Your task to perform on an android device: Clear all items from cart on target. Add "usb-a" to the cart on target, then select checkout. Image 0: 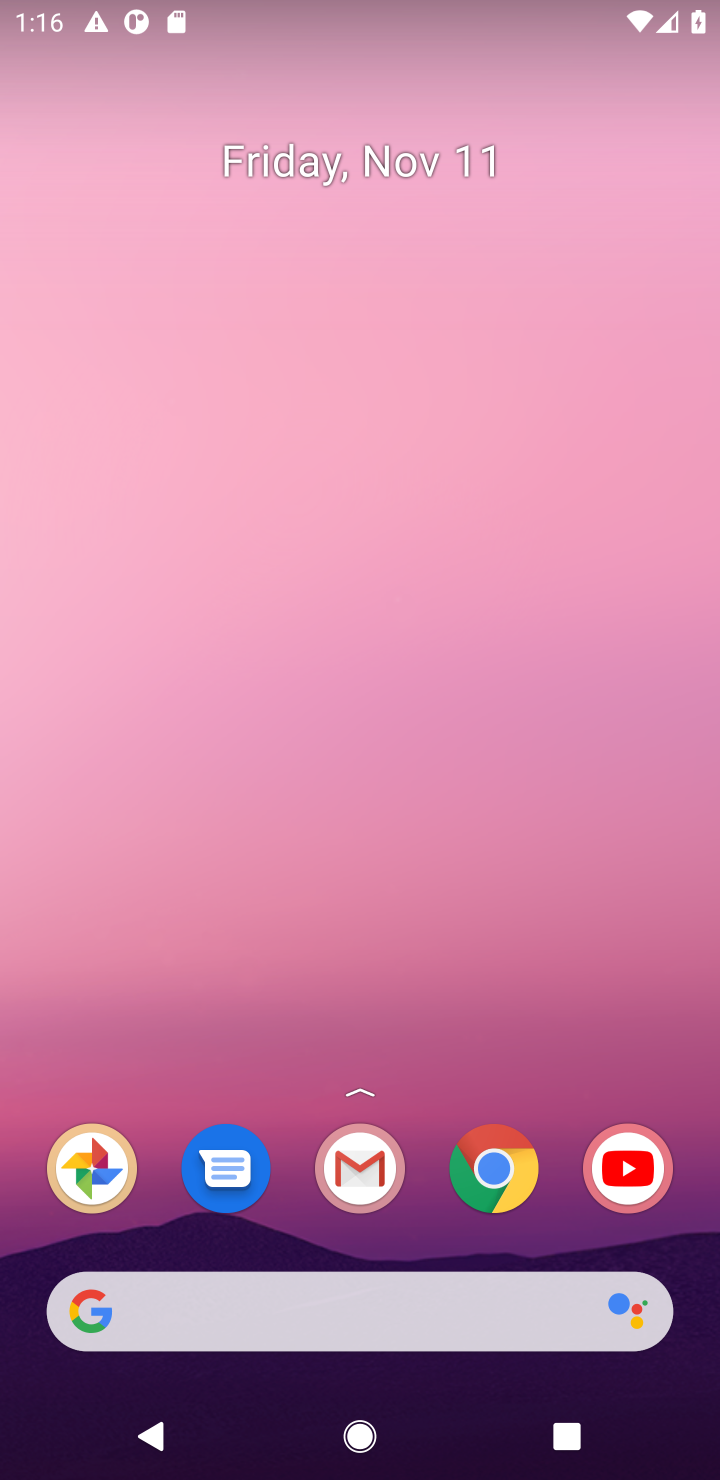
Step 0: click (505, 1169)
Your task to perform on an android device: Clear all items from cart on target. Add "usb-a" to the cart on target, then select checkout. Image 1: 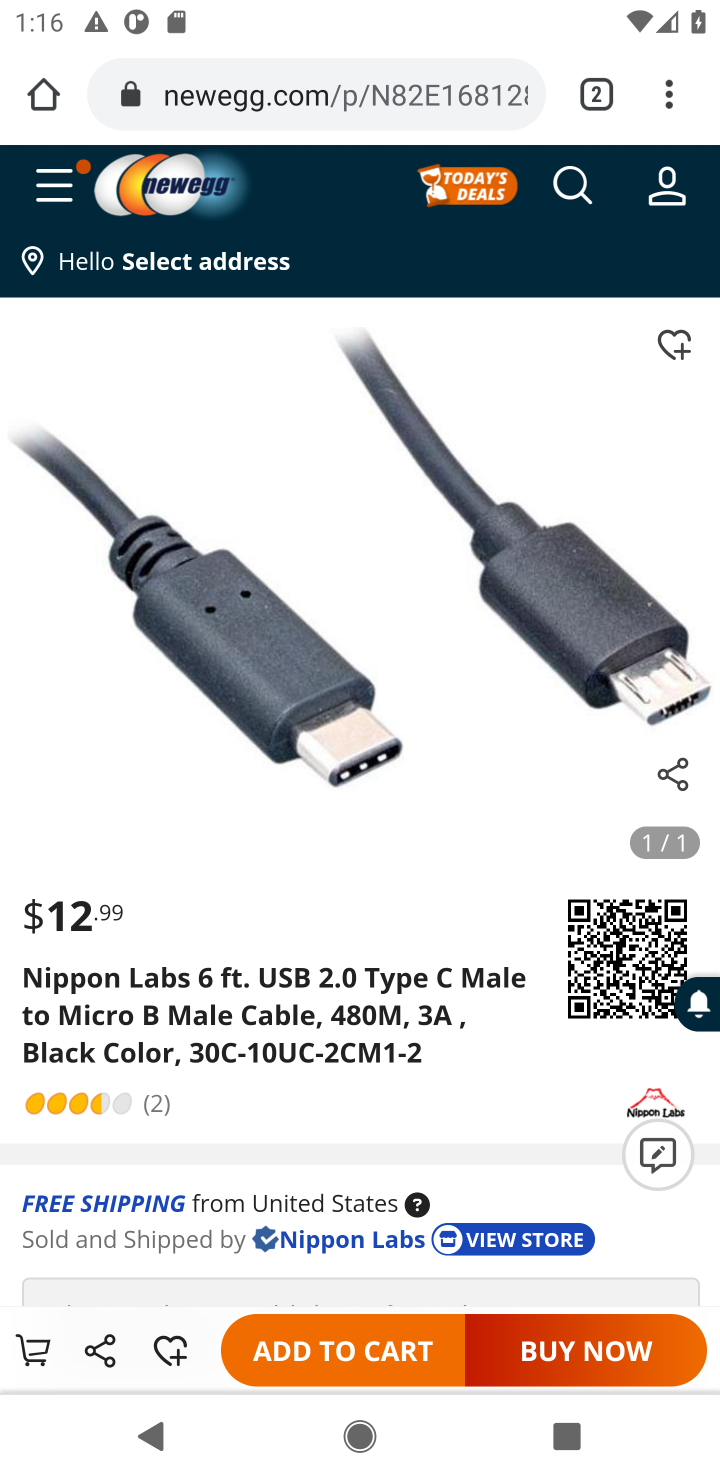
Step 1: click (333, 112)
Your task to perform on an android device: Clear all items from cart on target. Add "usb-a" to the cart on target, then select checkout. Image 2: 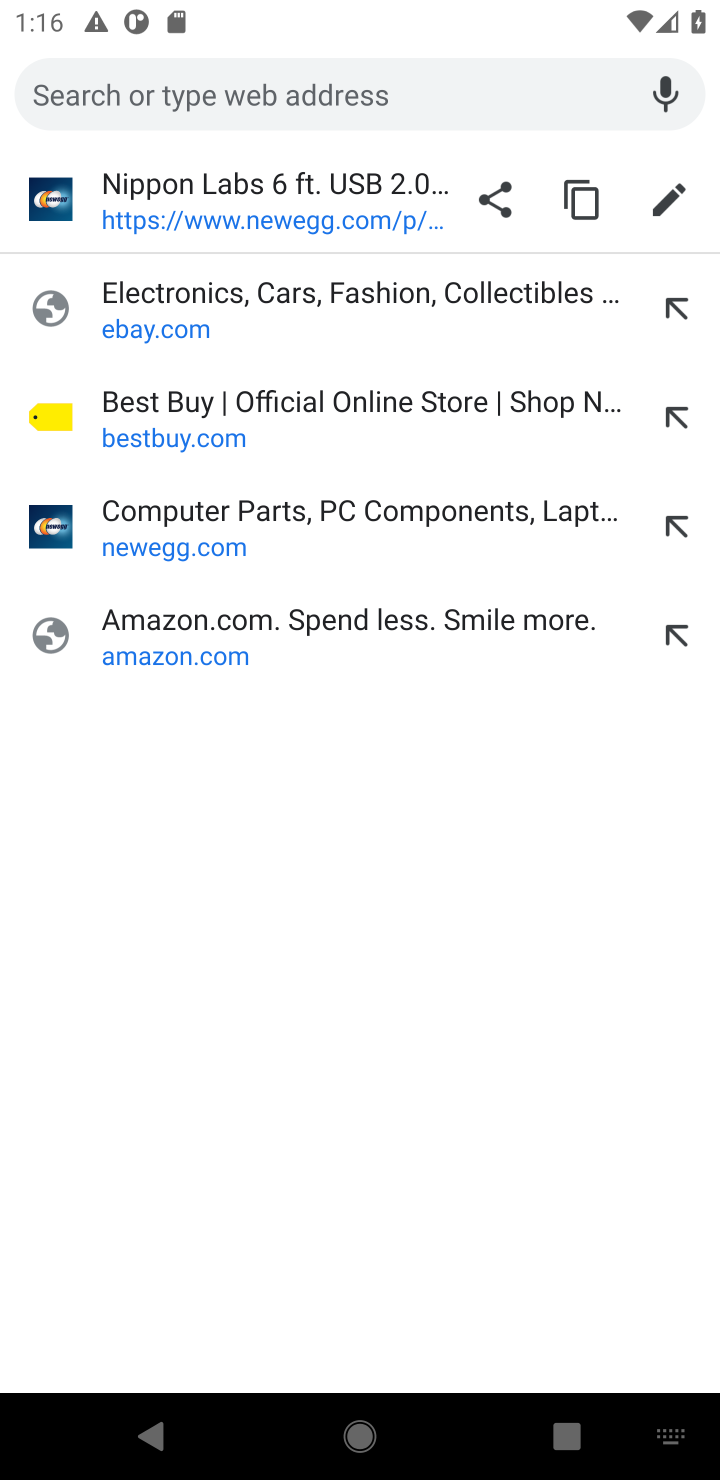
Step 2: type "target.com"
Your task to perform on an android device: Clear all items from cart on target. Add "usb-a" to the cart on target, then select checkout. Image 3: 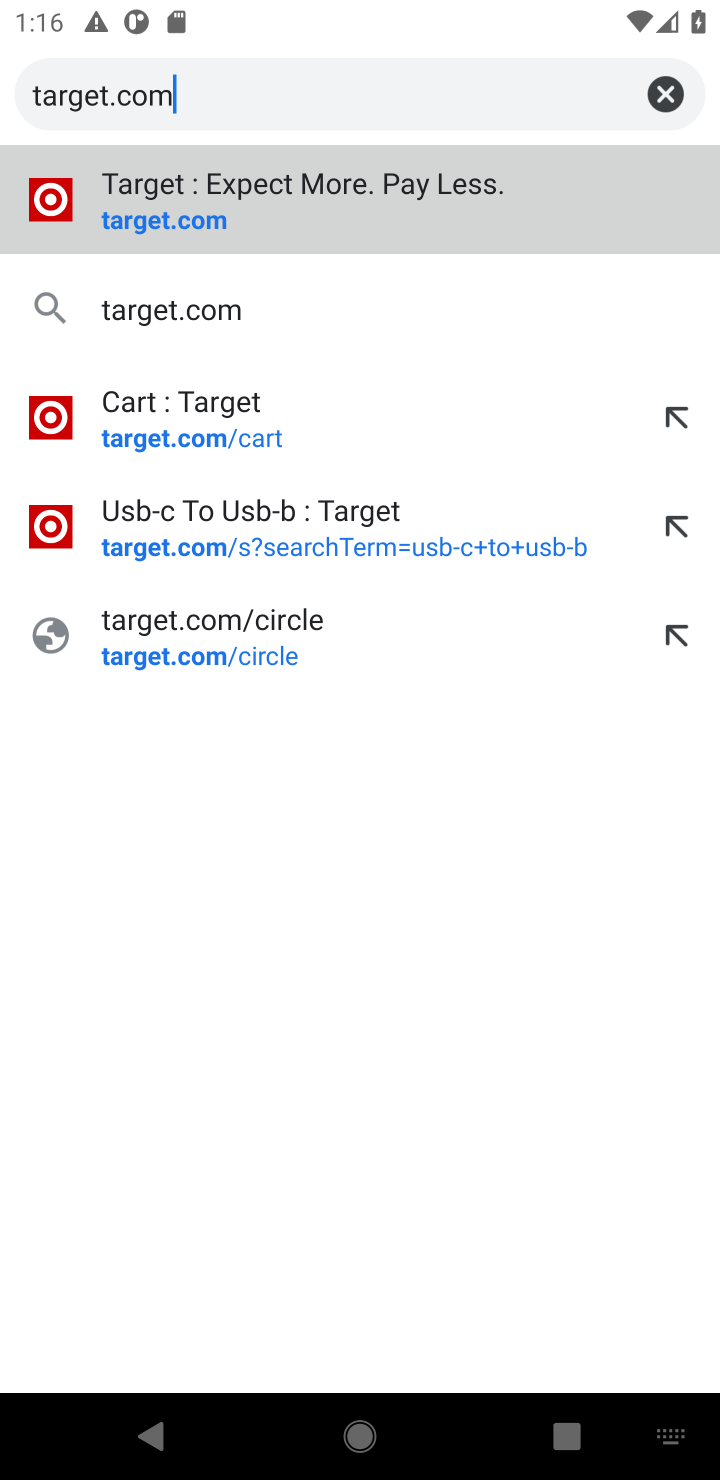
Step 3: click (134, 240)
Your task to perform on an android device: Clear all items from cart on target. Add "usb-a" to the cart on target, then select checkout. Image 4: 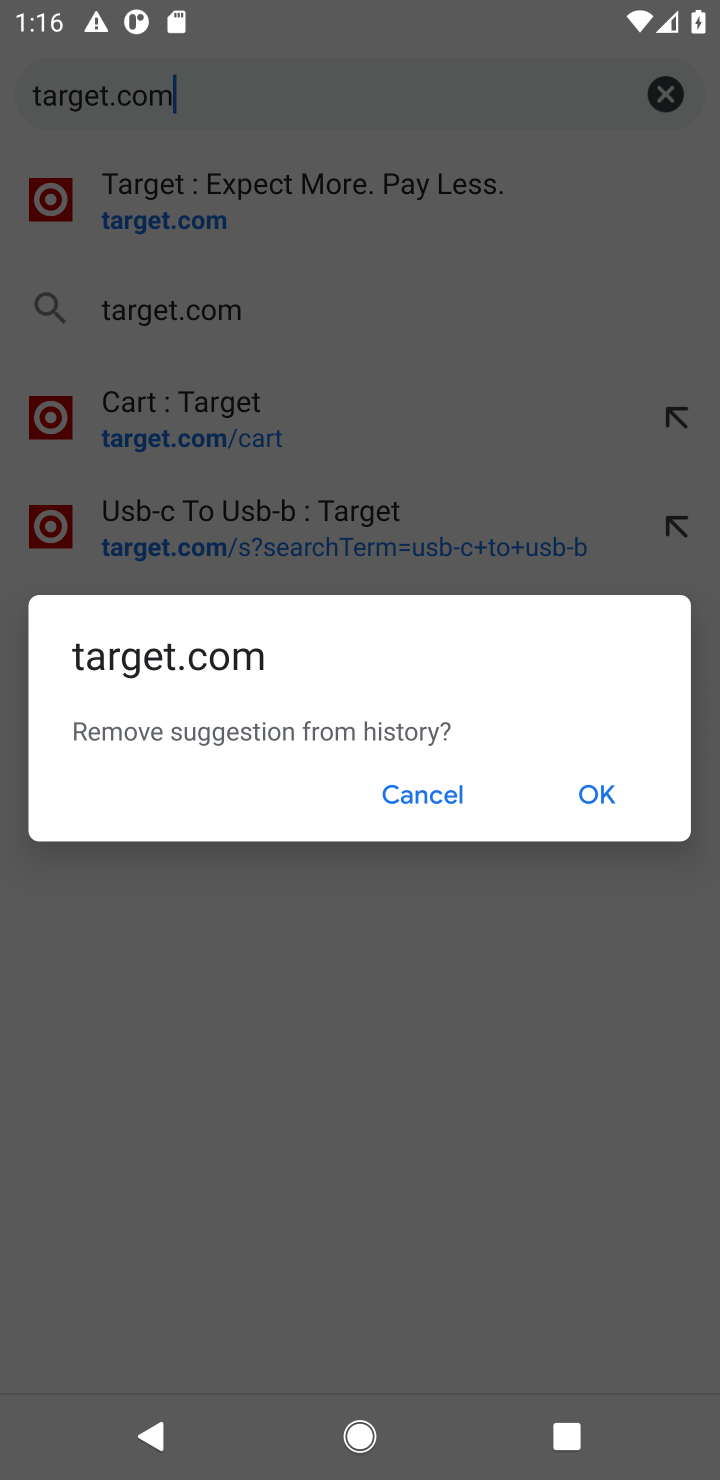
Step 4: click (441, 803)
Your task to perform on an android device: Clear all items from cart on target. Add "usb-a" to the cart on target, then select checkout. Image 5: 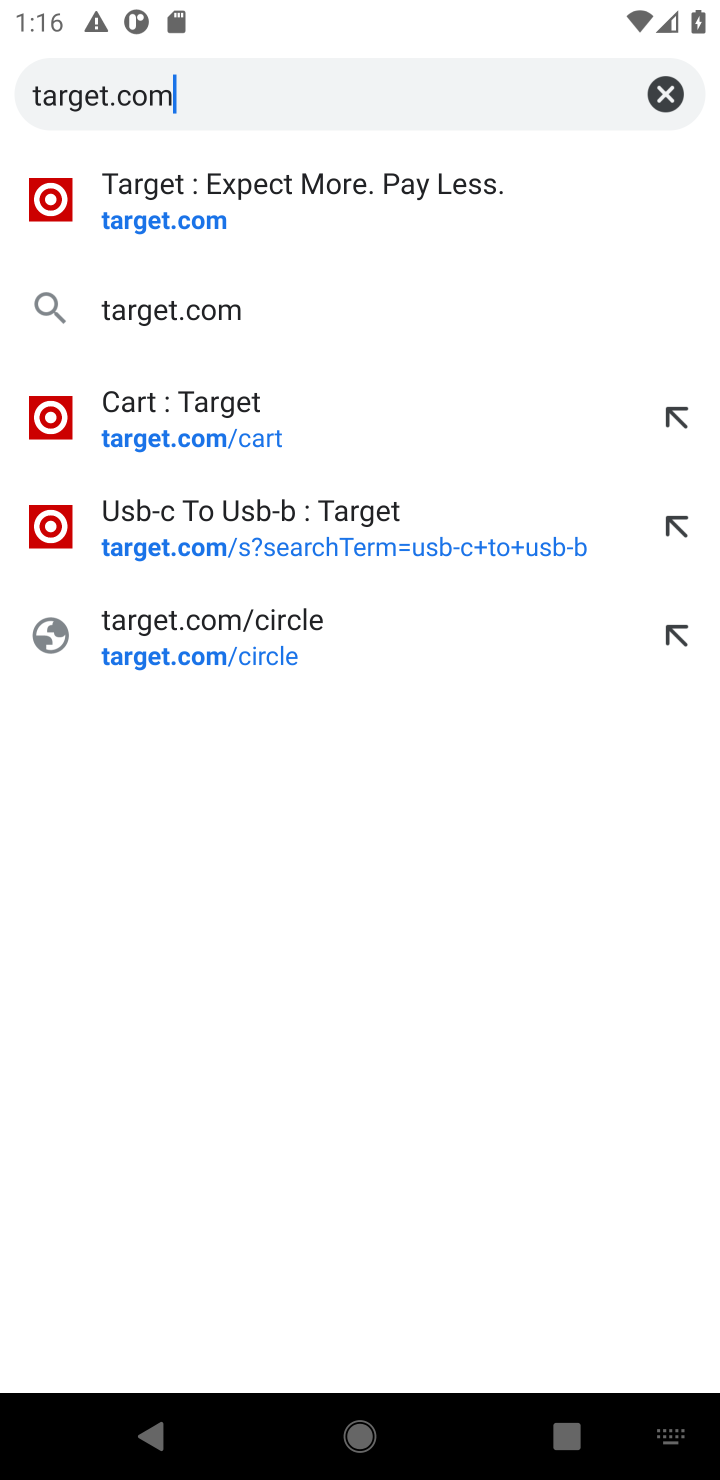
Step 5: click (184, 211)
Your task to perform on an android device: Clear all items from cart on target. Add "usb-a" to the cart on target, then select checkout. Image 6: 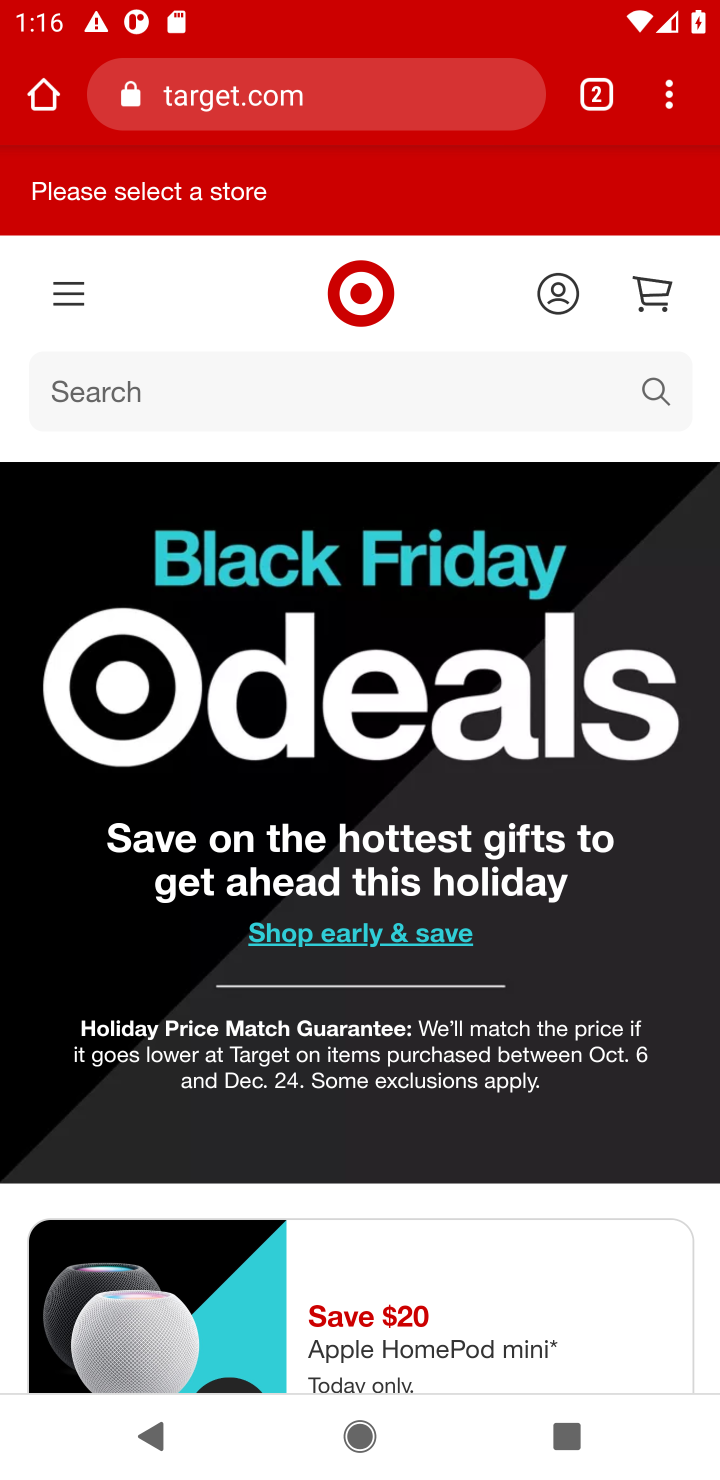
Step 6: click (656, 294)
Your task to perform on an android device: Clear all items from cart on target. Add "usb-a" to the cart on target, then select checkout. Image 7: 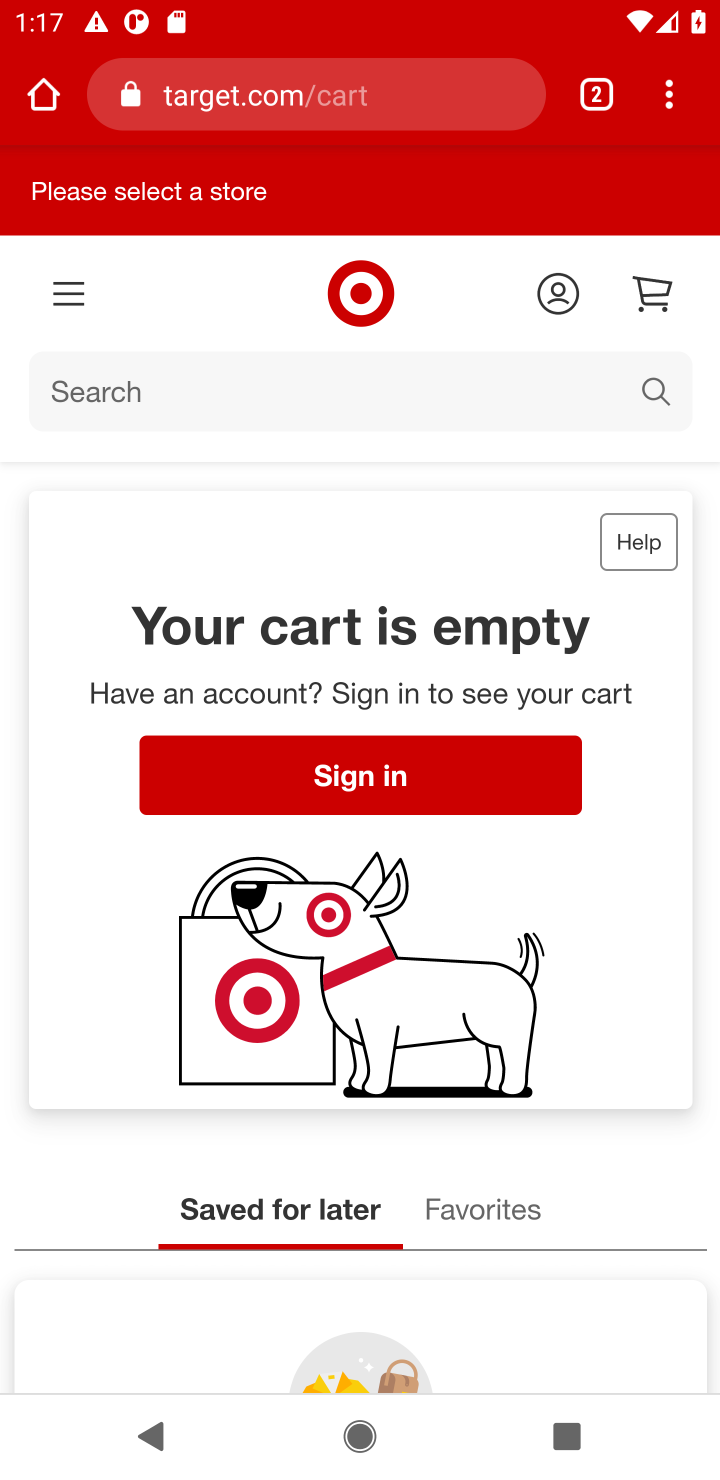
Step 7: click (665, 403)
Your task to perform on an android device: Clear all items from cart on target. Add "usb-a" to the cart on target, then select checkout. Image 8: 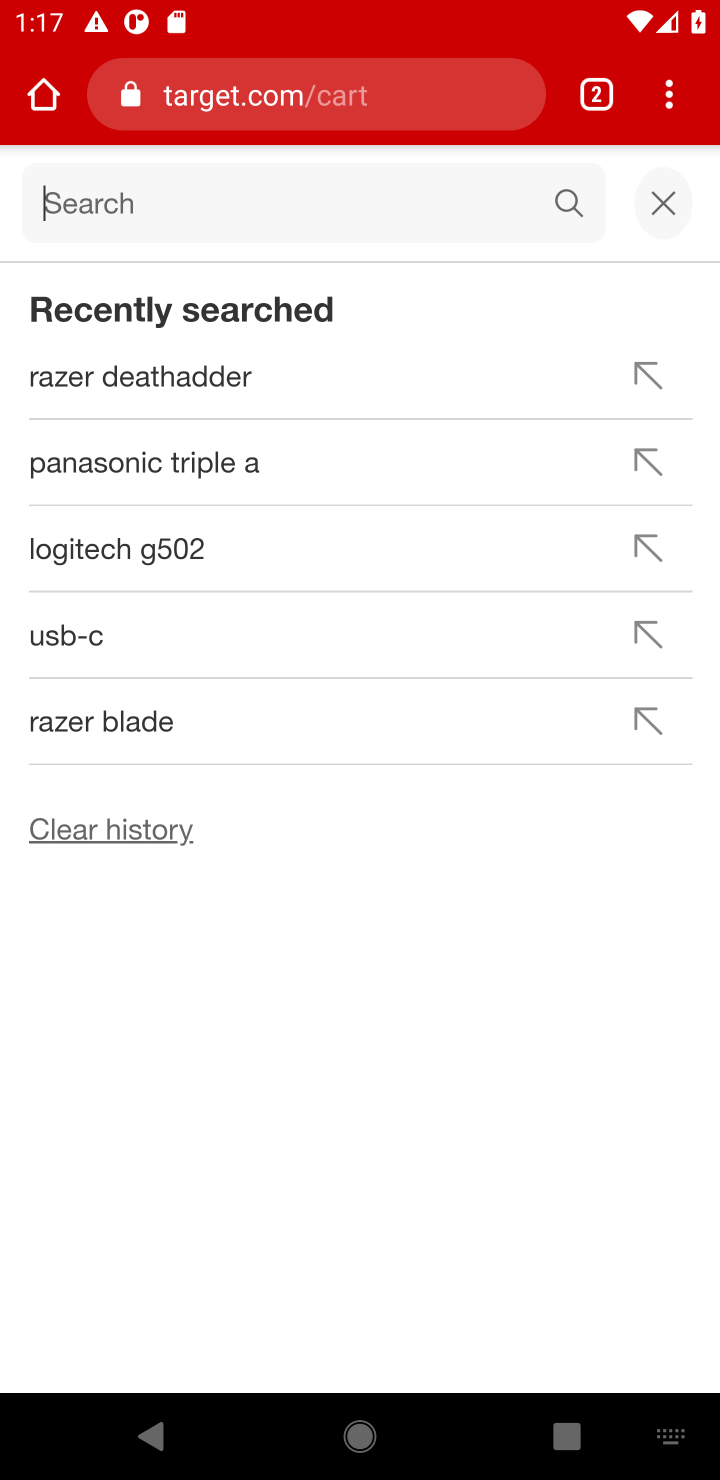
Step 8: type "usb-a"
Your task to perform on an android device: Clear all items from cart on target. Add "usb-a" to the cart on target, then select checkout. Image 9: 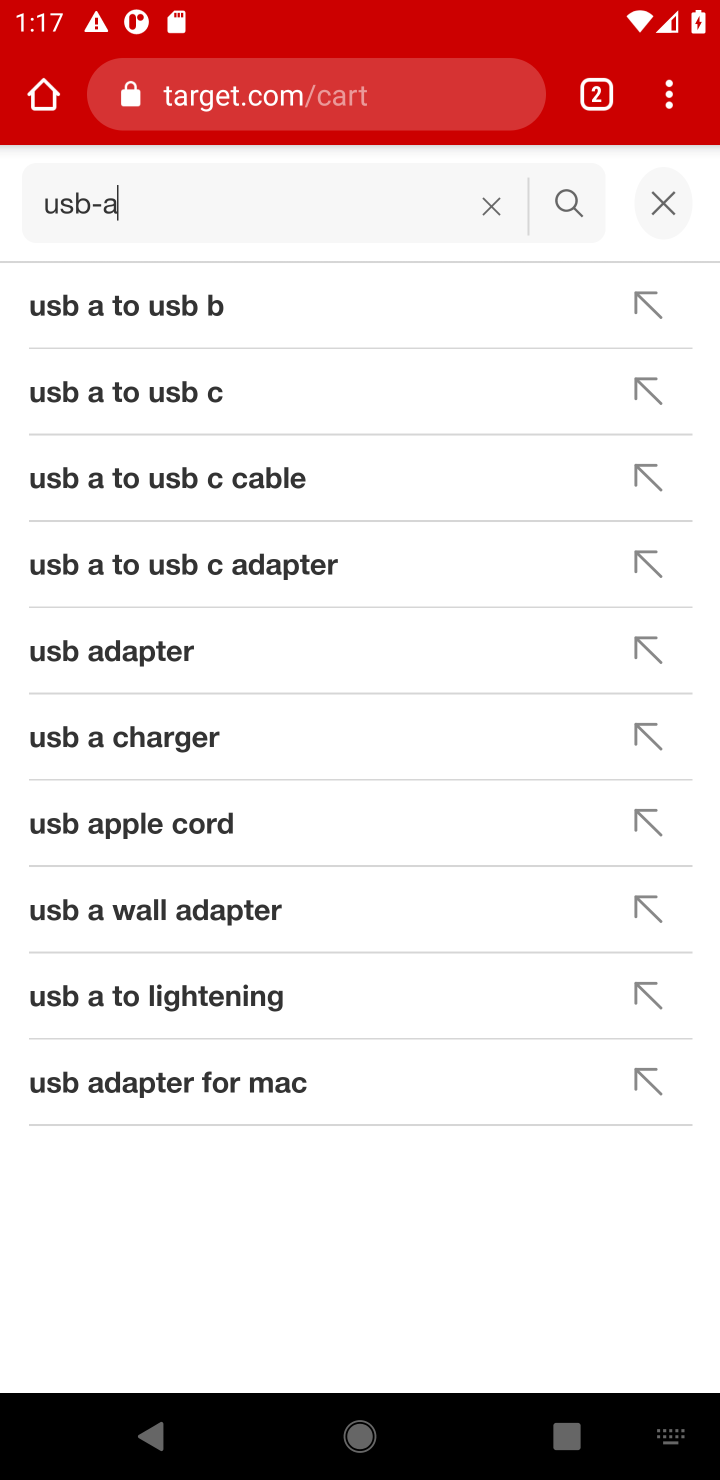
Step 9: click (566, 208)
Your task to perform on an android device: Clear all items from cart on target. Add "usb-a" to the cart on target, then select checkout. Image 10: 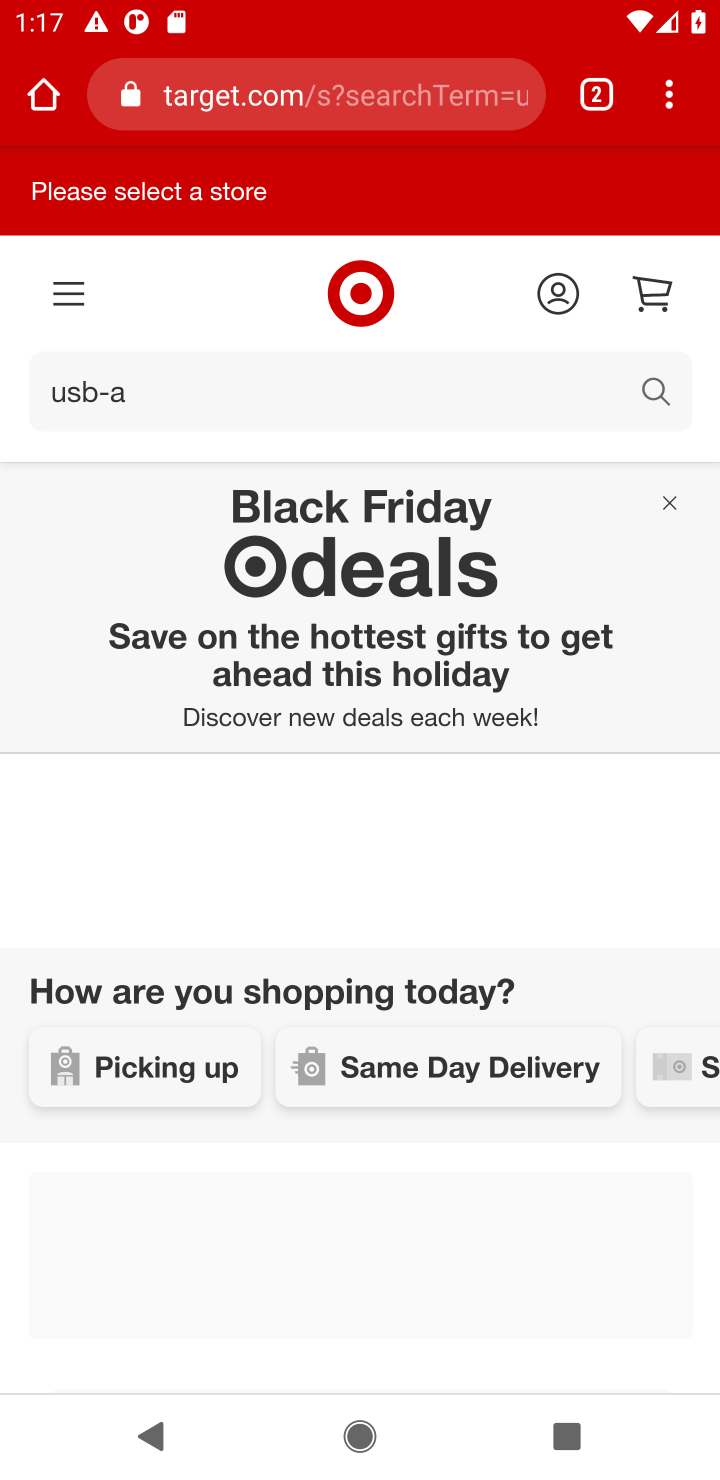
Step 10: drag from (396, 1037) to (413, 252)
Your task to perform on an android device: Clear all items from cart on target. Add "usb-a" to the cart on target, then select checkout. Image 11: 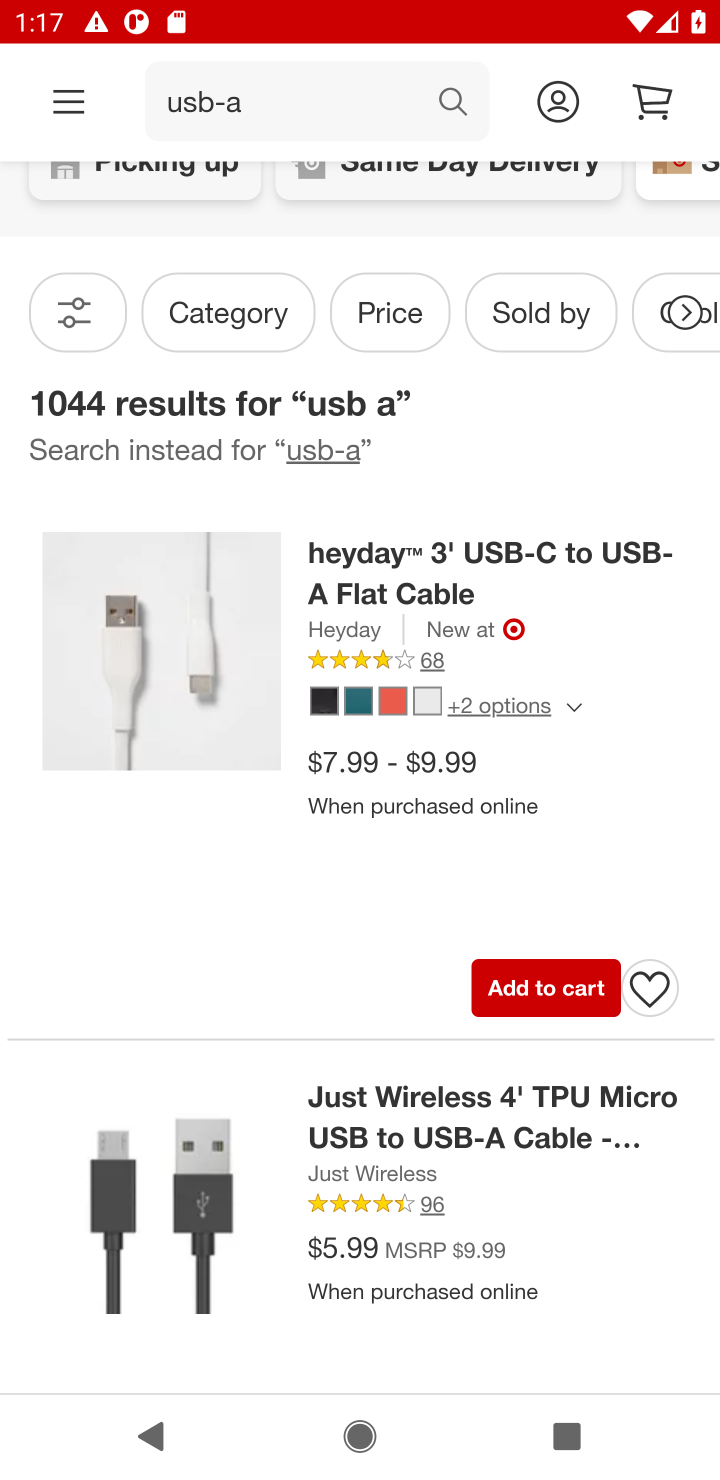
Step 11: click (205, 1228)
Your task to perform on an android device: Clear all items from cart on target. Add "usb-a" to the cart on target, then select checkout. Image 12: 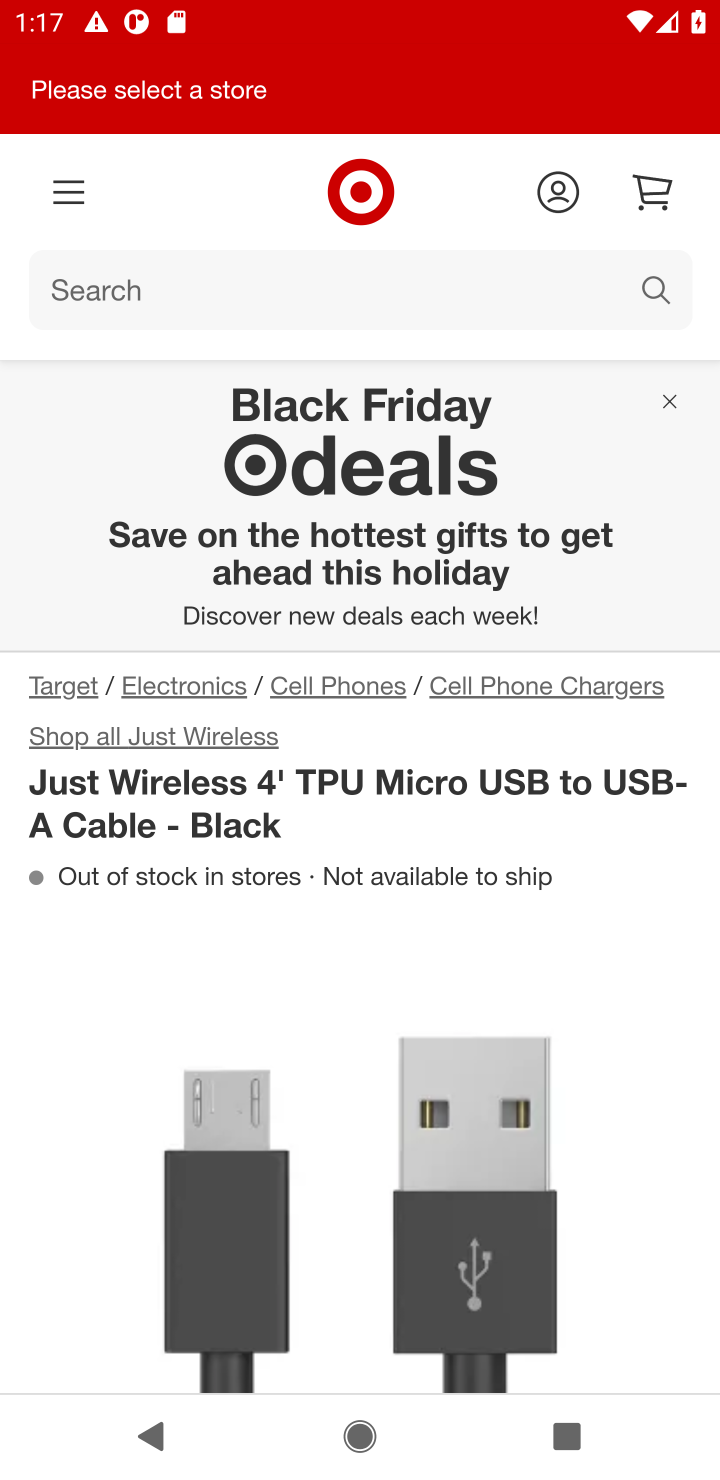
Step 12: drag from (304, 1120) to (341, 523)
Your task to perform on an android device: Clear all items from cart on target. Add "usb-a" to the cart on target, then select checkout. Image 13: 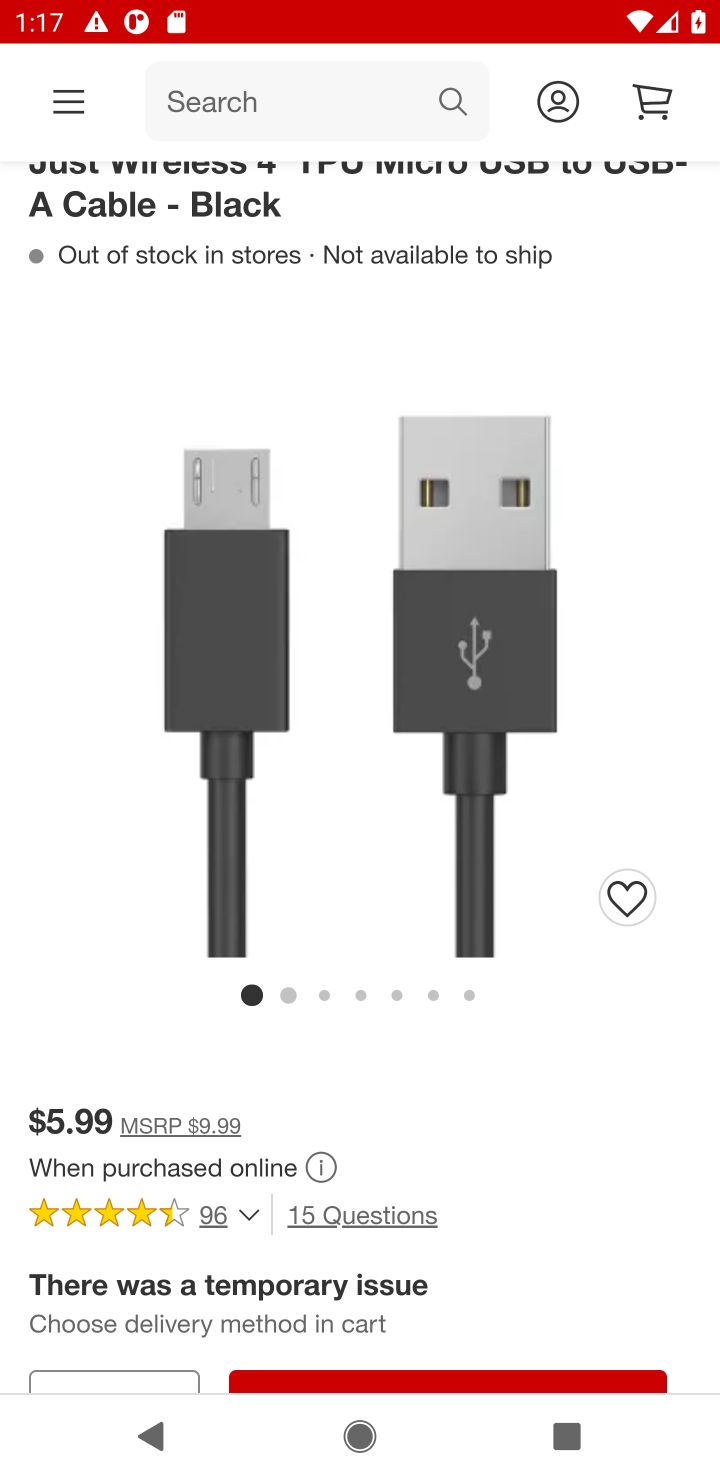
Step 13: drag from (356, 1158) to (372, 596)
Your task to perform on an android device: Clear all items from cart on target. Add "usb-a" to the cart on target, then select checkout. Image 14: 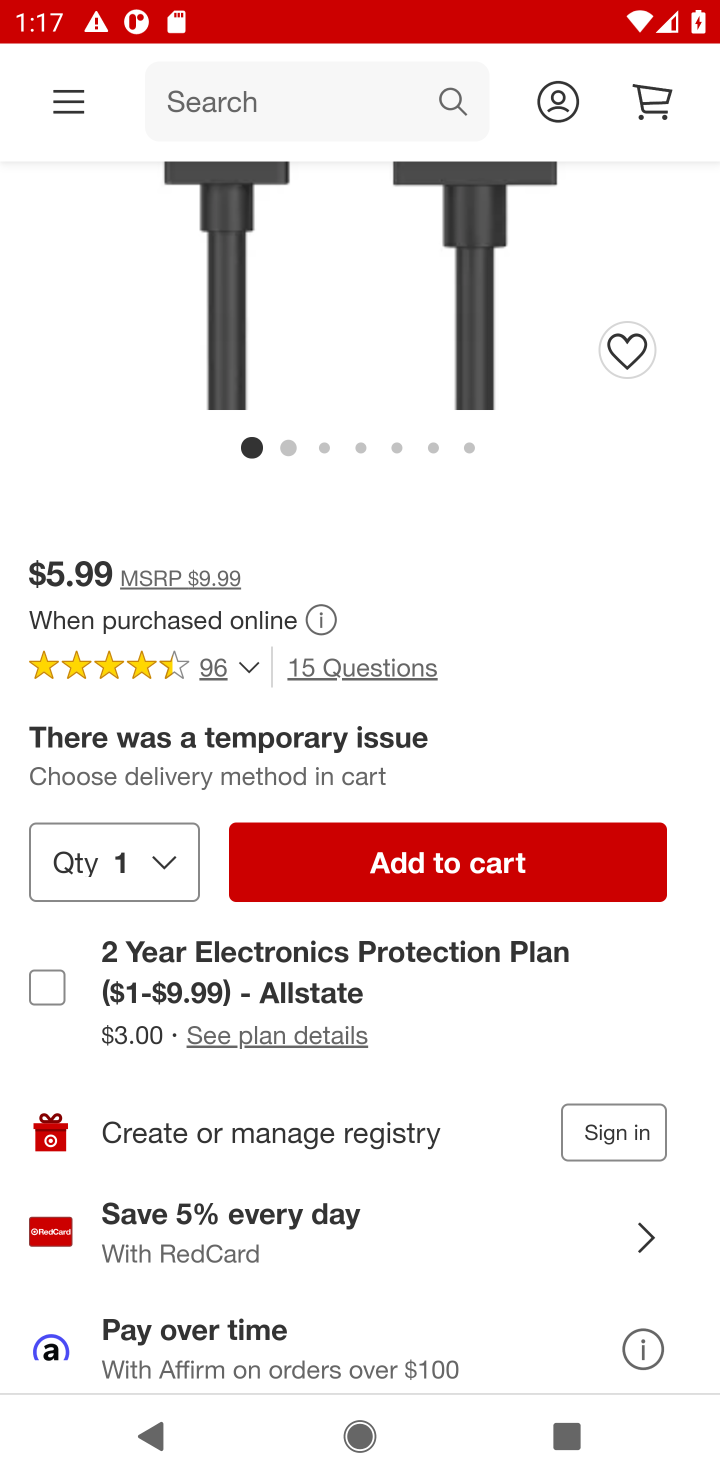
Step 14: click (408, 855)
Your task to perform on an android device: Clear all items from cart on target. Add "usb-a" to the cart on target, then select checkout. Image 15: 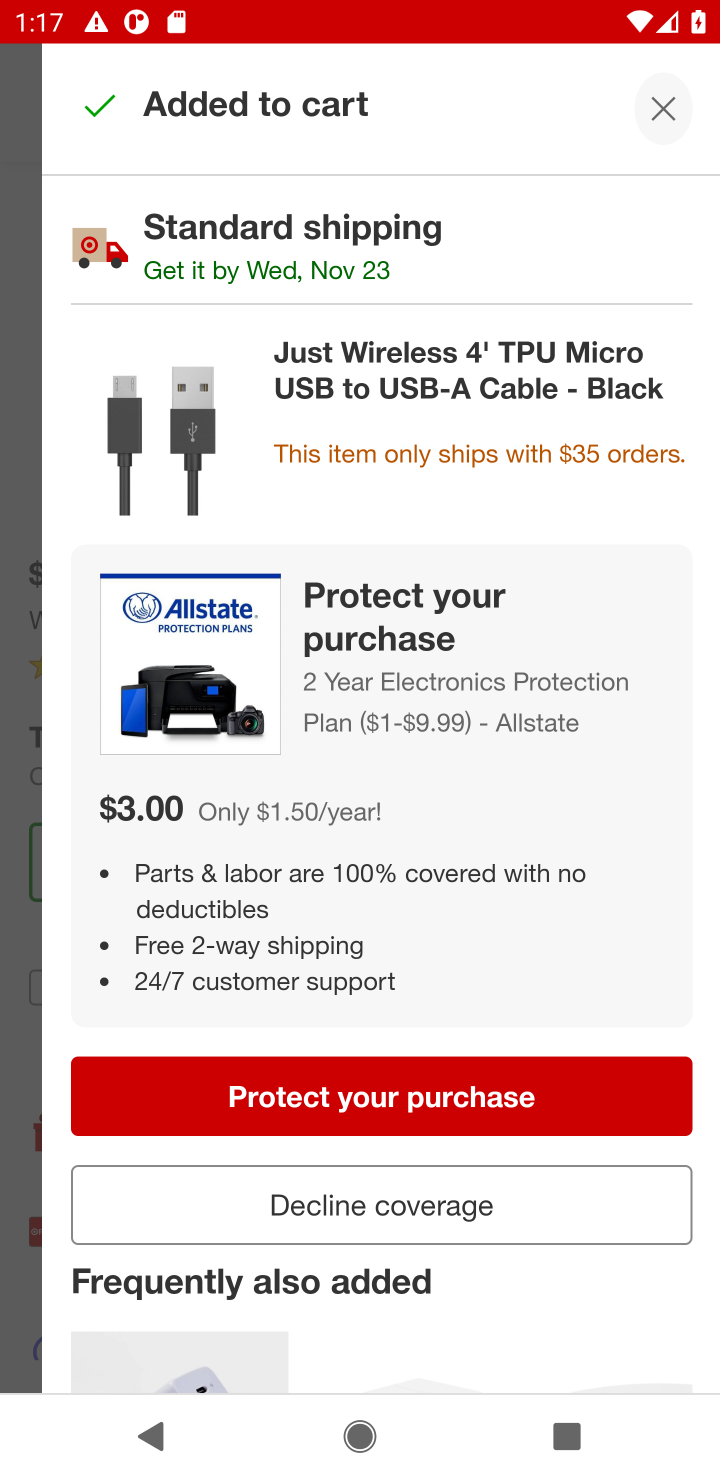
Step 15: click (665, 110)
Your task to perform on an android device: Clear all items from cart on target. Add "usb-a" to the cart on target, then select checkout. Image 16: 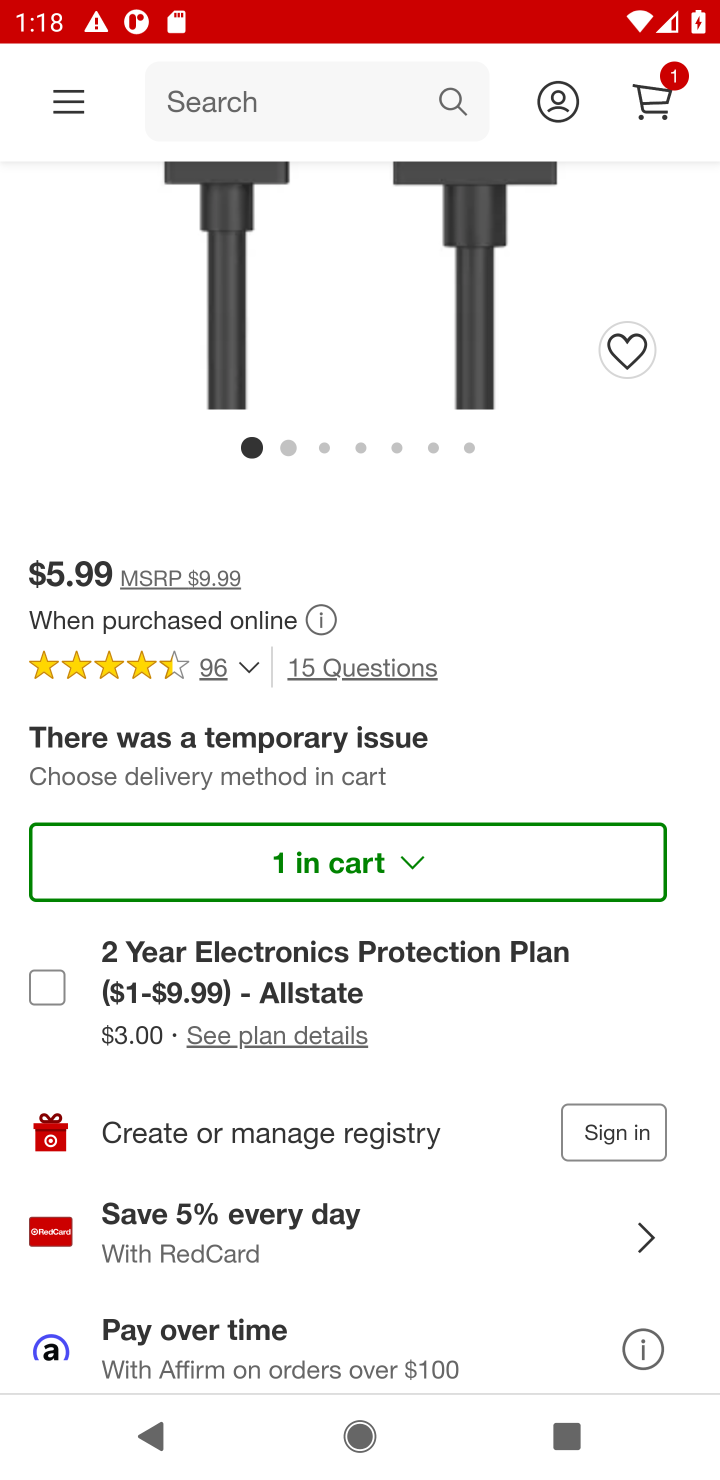
Step 16: click (654, 87)
Your task to perform on an android device: Clear all items from cart on target. Add "usb-a" to the cart on target, then select checkout. Image 17: 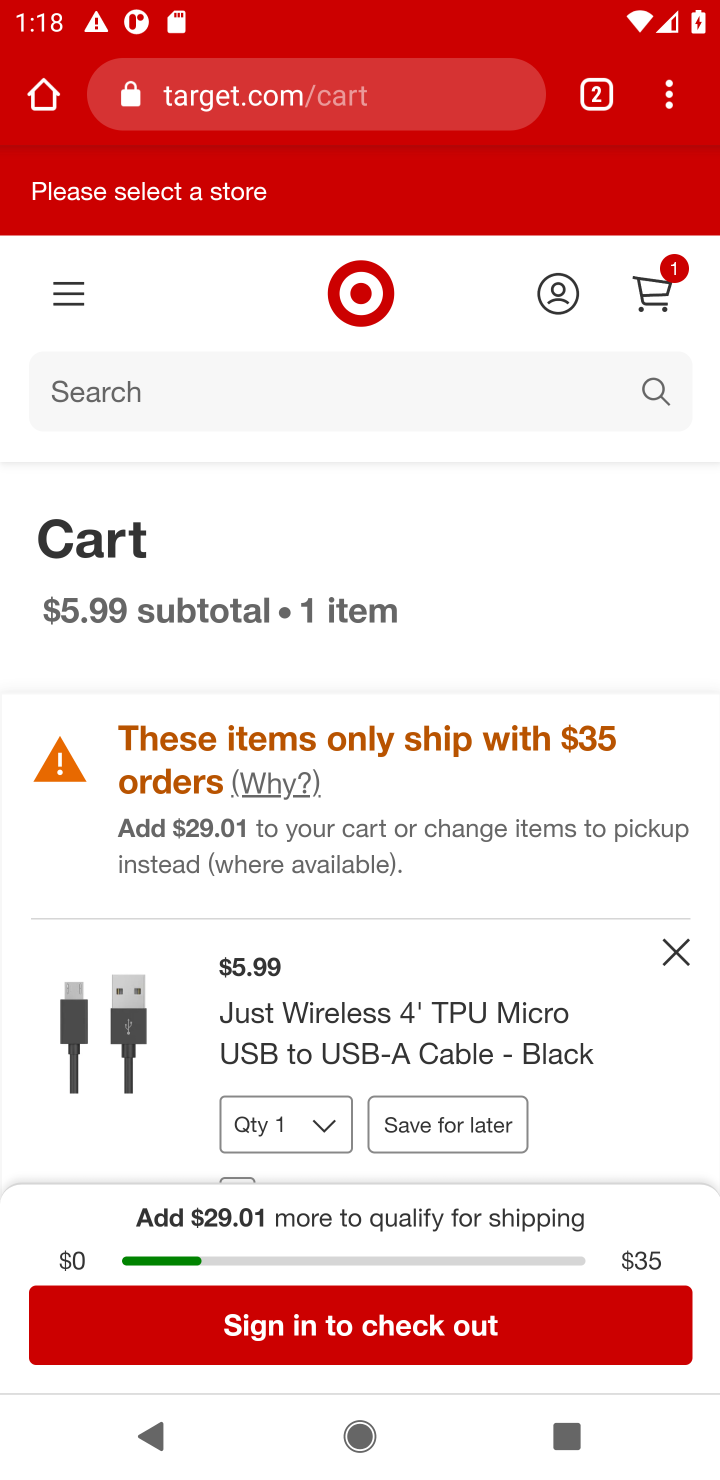
Step 17: click (400, 1320)
Your task to perform on an android device: Clear all items from cart on target. Add "usb-a" to the cart on target, then select checkout. Image 18: 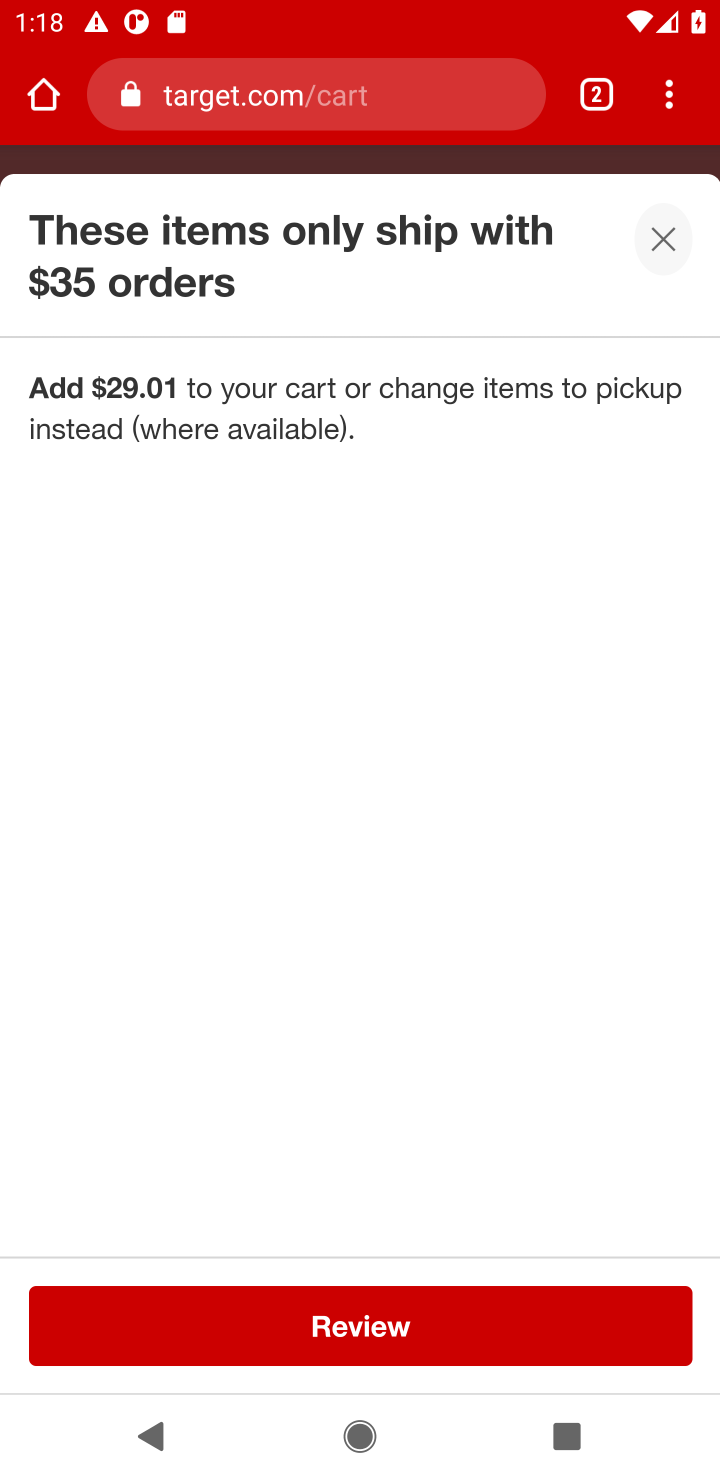
Step 18: task complete